Your task to perform on an android device: Open the calendar and show me this week's events? Image 0: 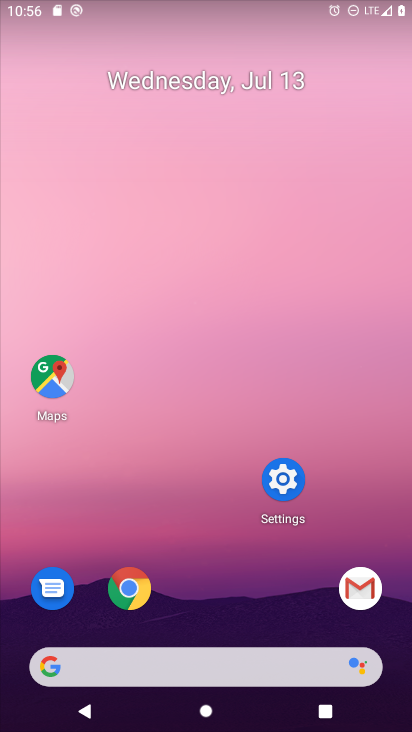
Step 0: drag from (299, 669) to (185, 137)
Your task to perform on an android device: Open the calendar and show me this week's events? Image 1: 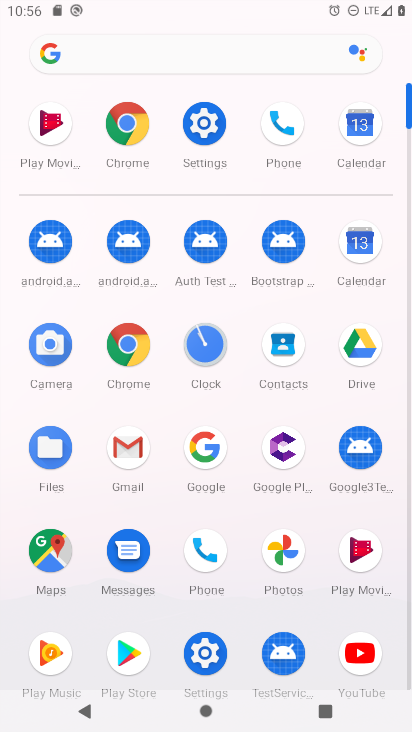
Step 1: click (360, 259)
Your task to perform on an android device: Open the calendar and show me this week's events? Image 2: 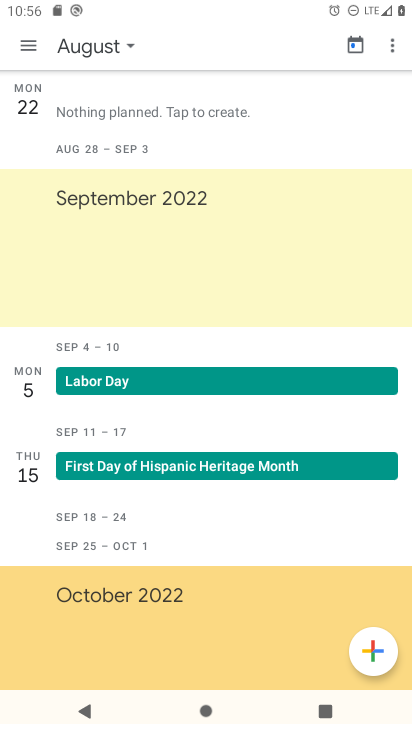
Step 2: click (27, 56)
Your task to perform on an android device: Open the calendar and show me this week's events? Image 3: 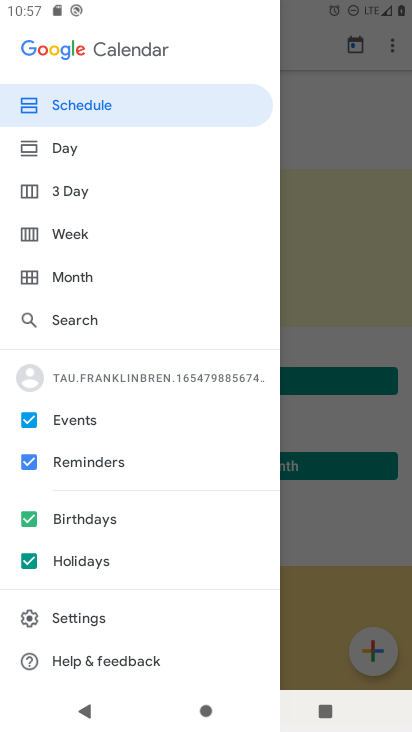
Step 3: click (70, 244)
Your task to perform on an android device: Open the calendar and show me this week's events? Image 4: 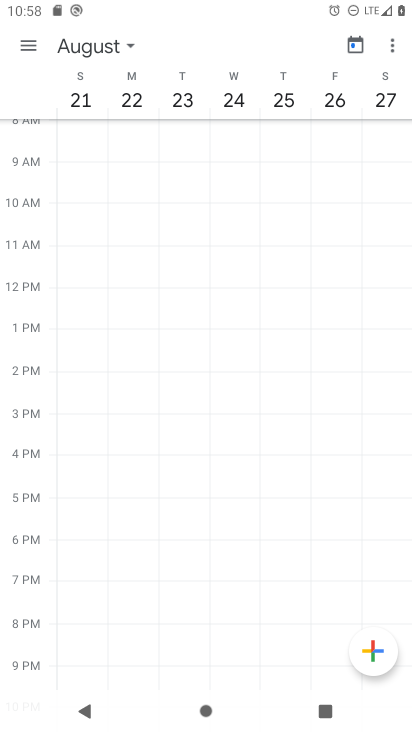
Step 4: task complete